Your task to perform on an android device: turn on showing notifications on the lock screen Image 0: 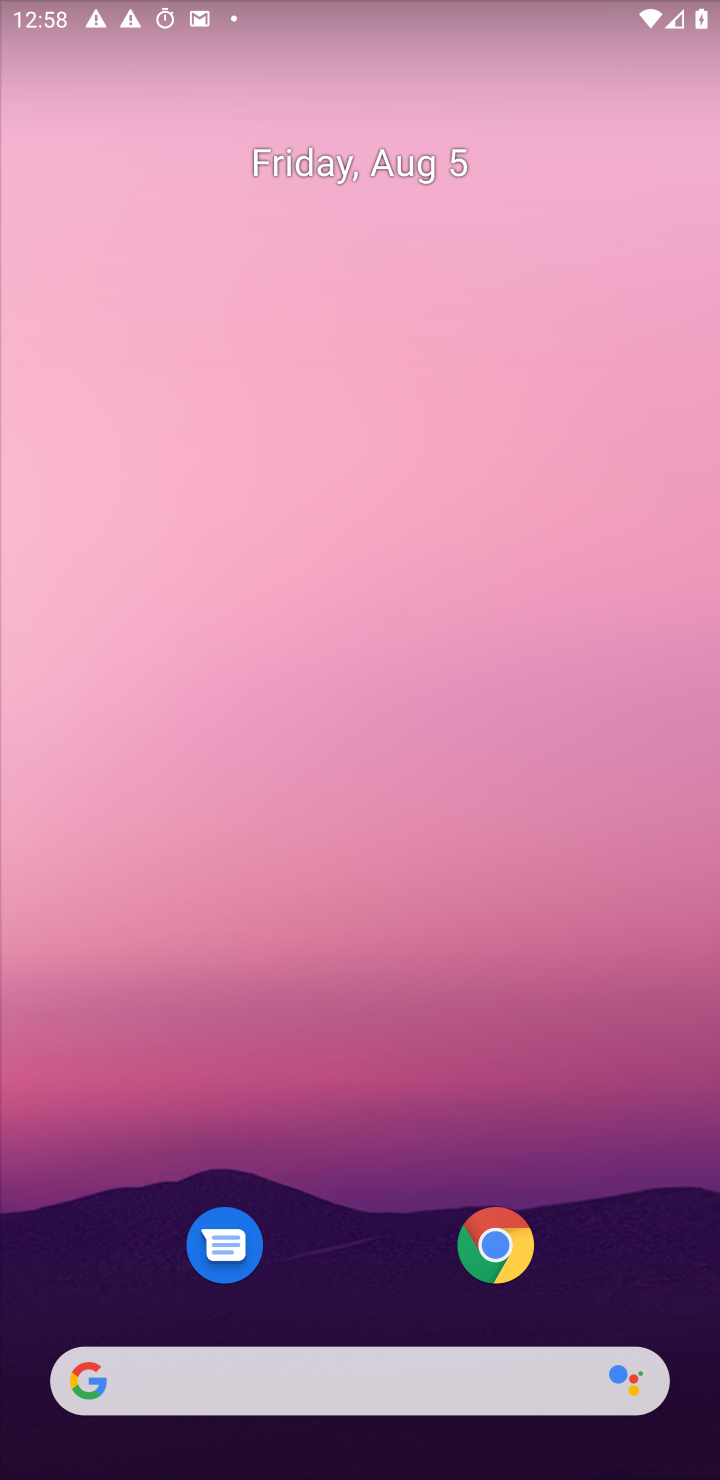
Step 0: press home button
Your task to perform on an android device: turn on showing notifications on the lock screen Image 1: 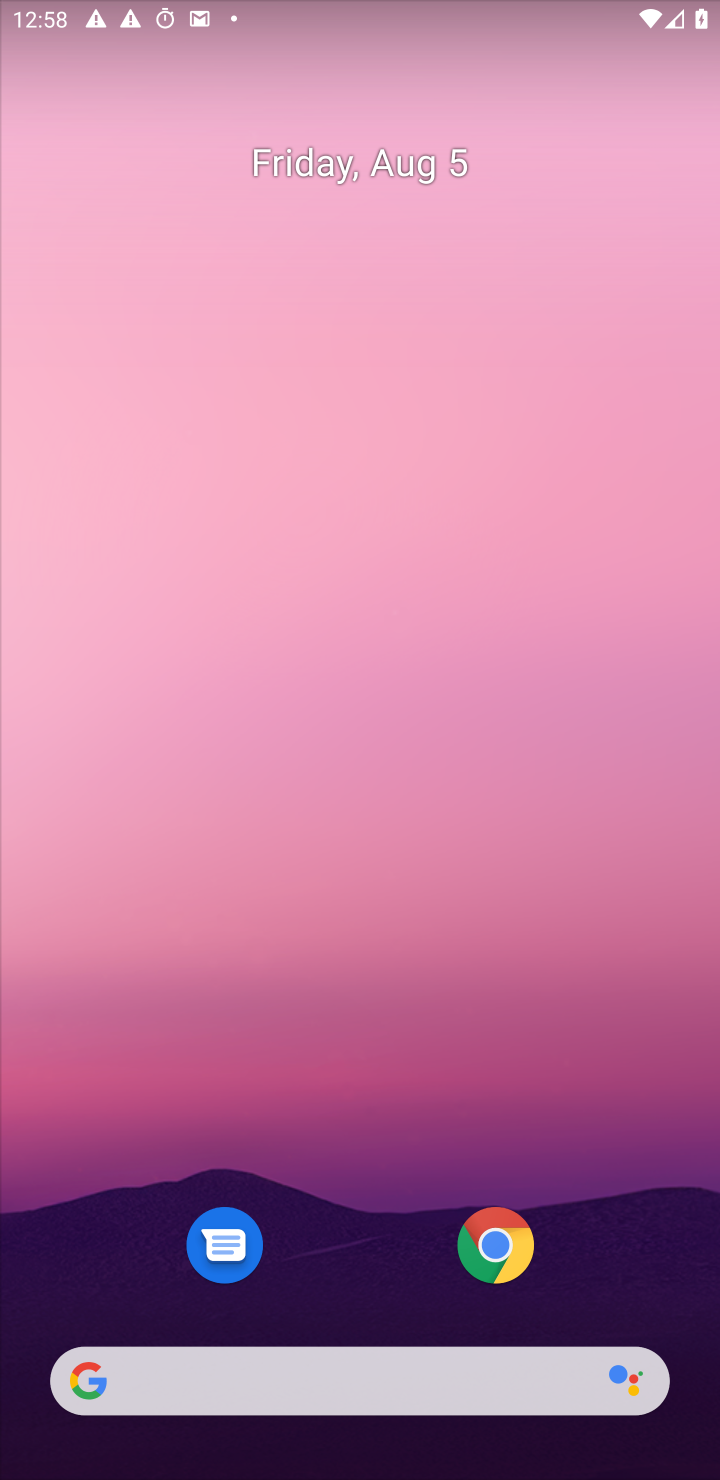
Step 1: drag from (328, 1300) to (525, 247)
Your task to perform on an android device: turn on showing notifications on the lock screen Image 2: 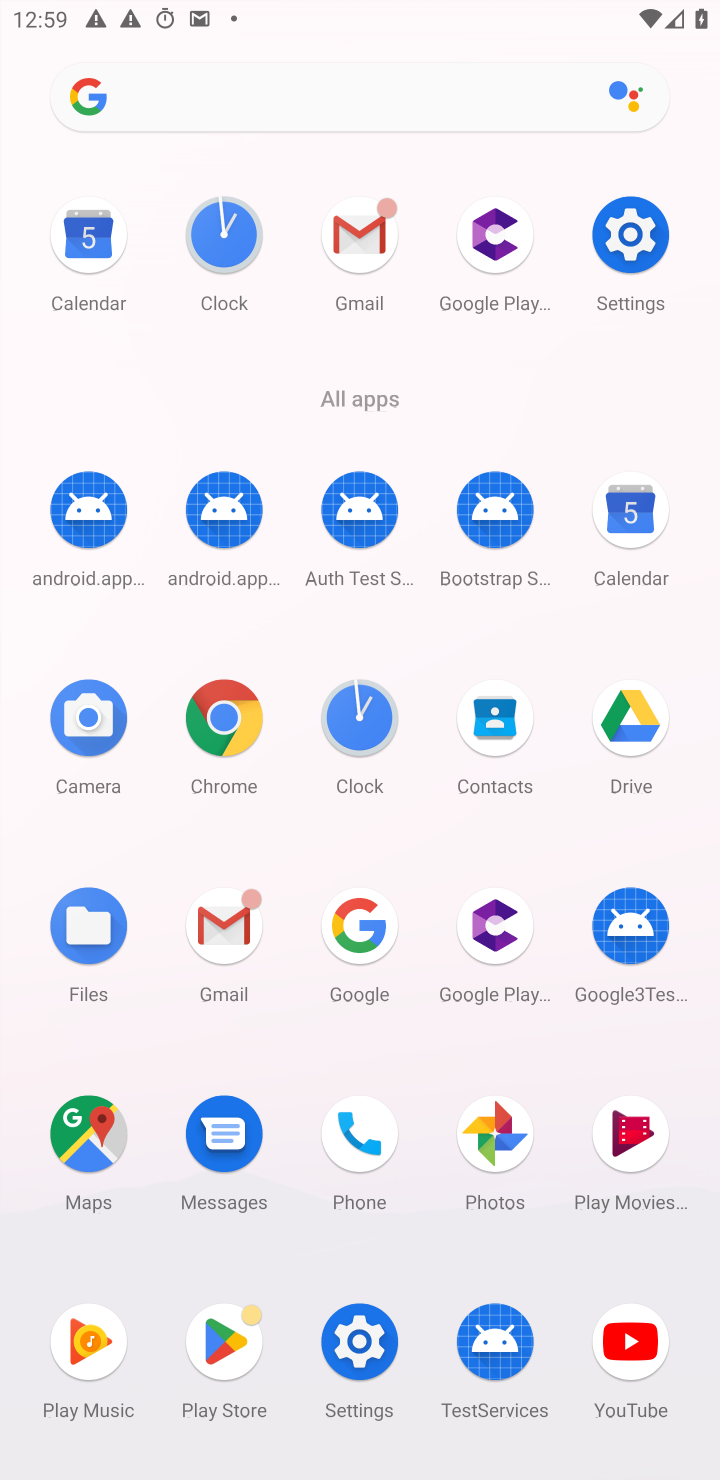
Step 2: click (630, 235)
Your task to perform on an android device: turn on showing notifications on the lock screen Image 3: 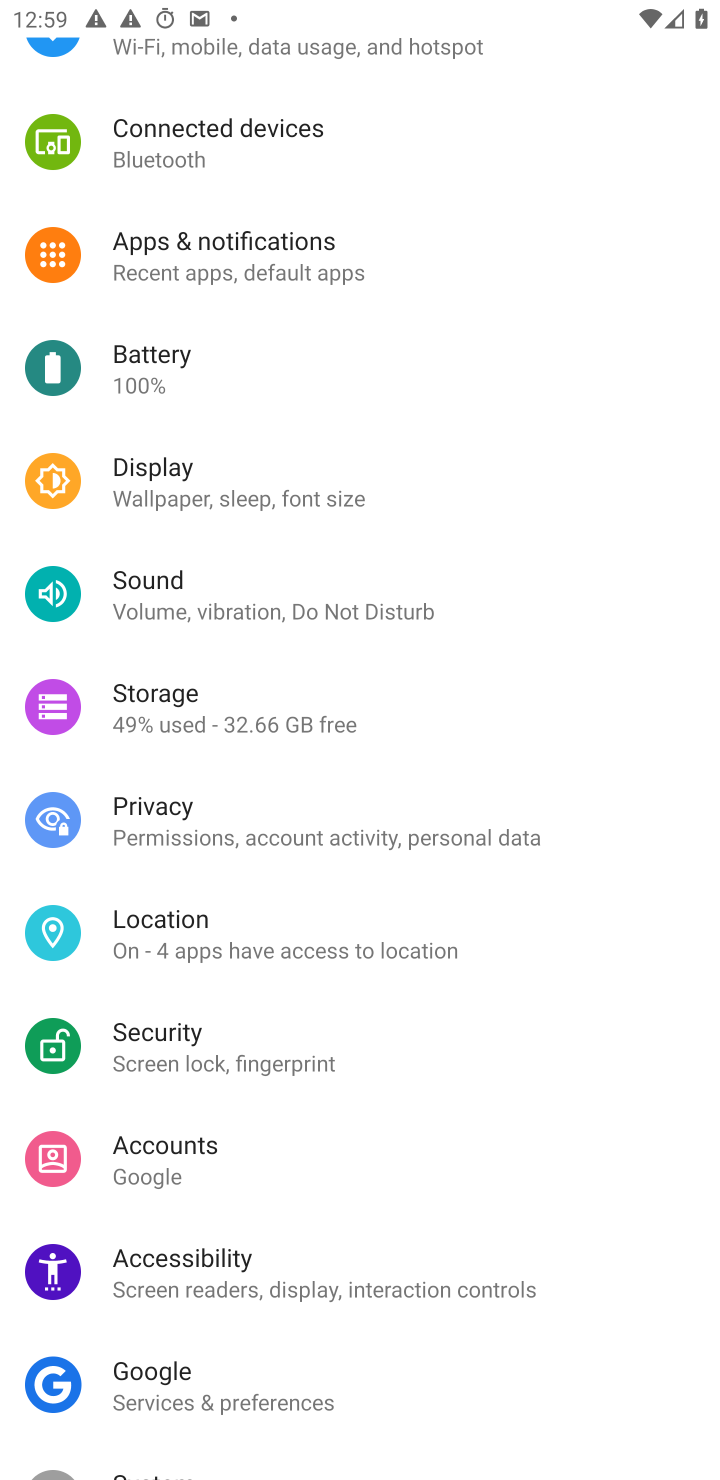
Step 3: click (225, 248)
Your task to perform on an android device: turn on showing notifications on the lock screen Image 4: 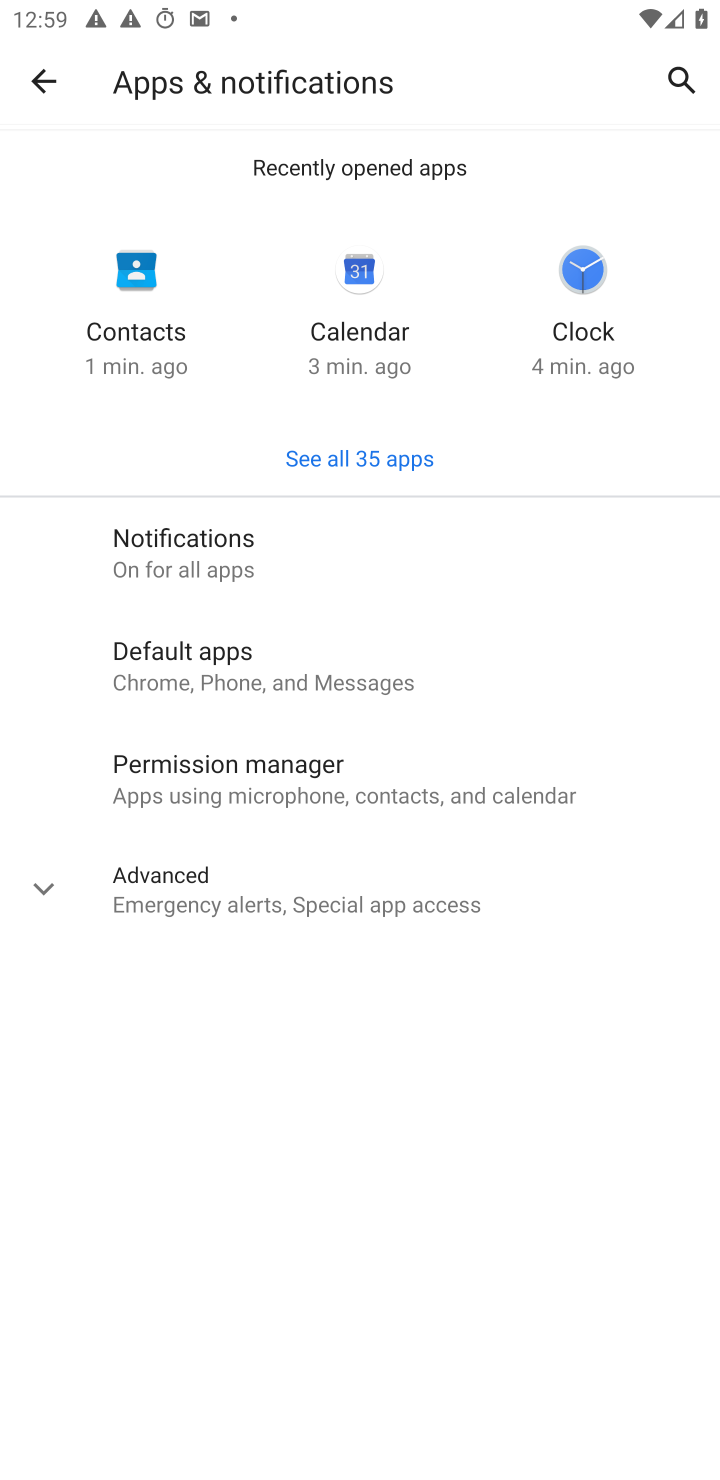
Step 4: click (216, 555)
Your task to perform on an android device: turn on showing notifications on the lock screen Image 5: 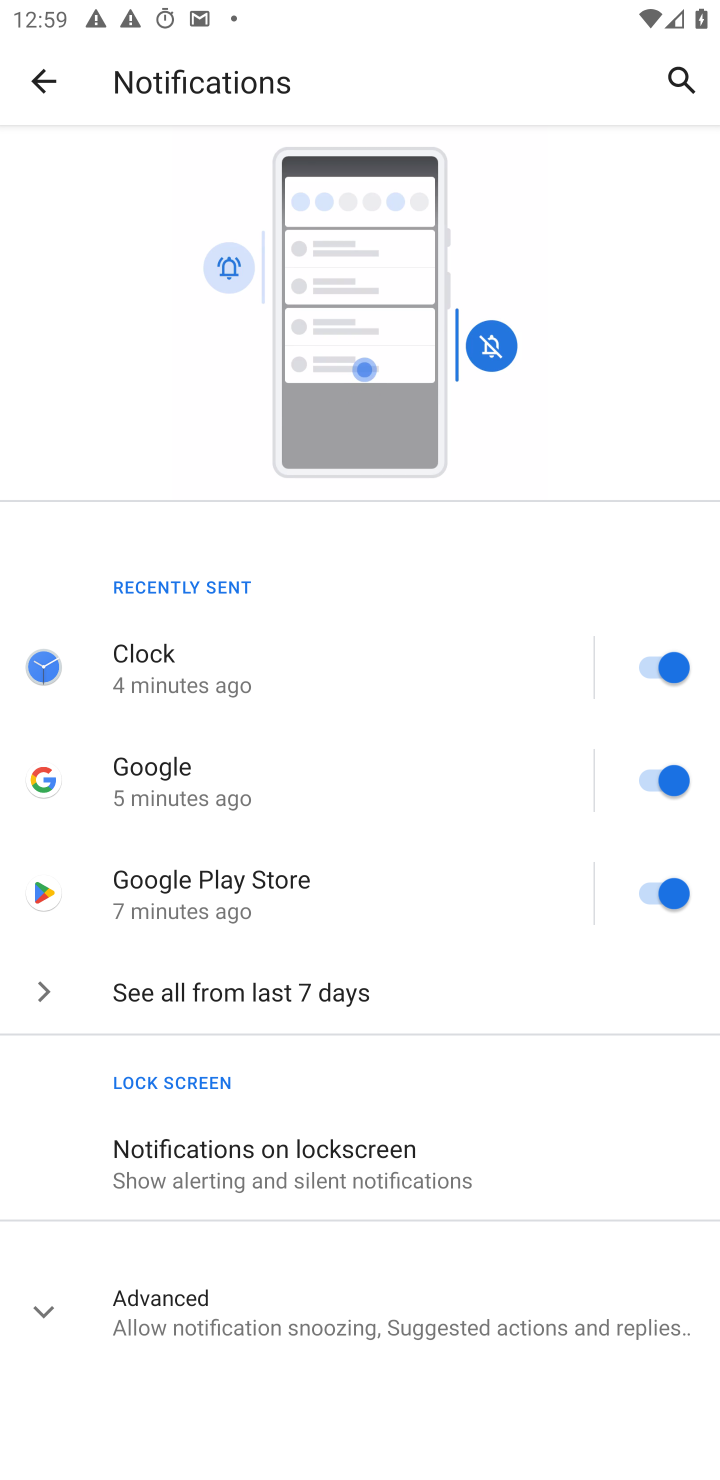
Step 5: drag from (555, 485) to (555, 409)
Your task to perform on an android device: turn on showing notifications on the lock screen Image 6: 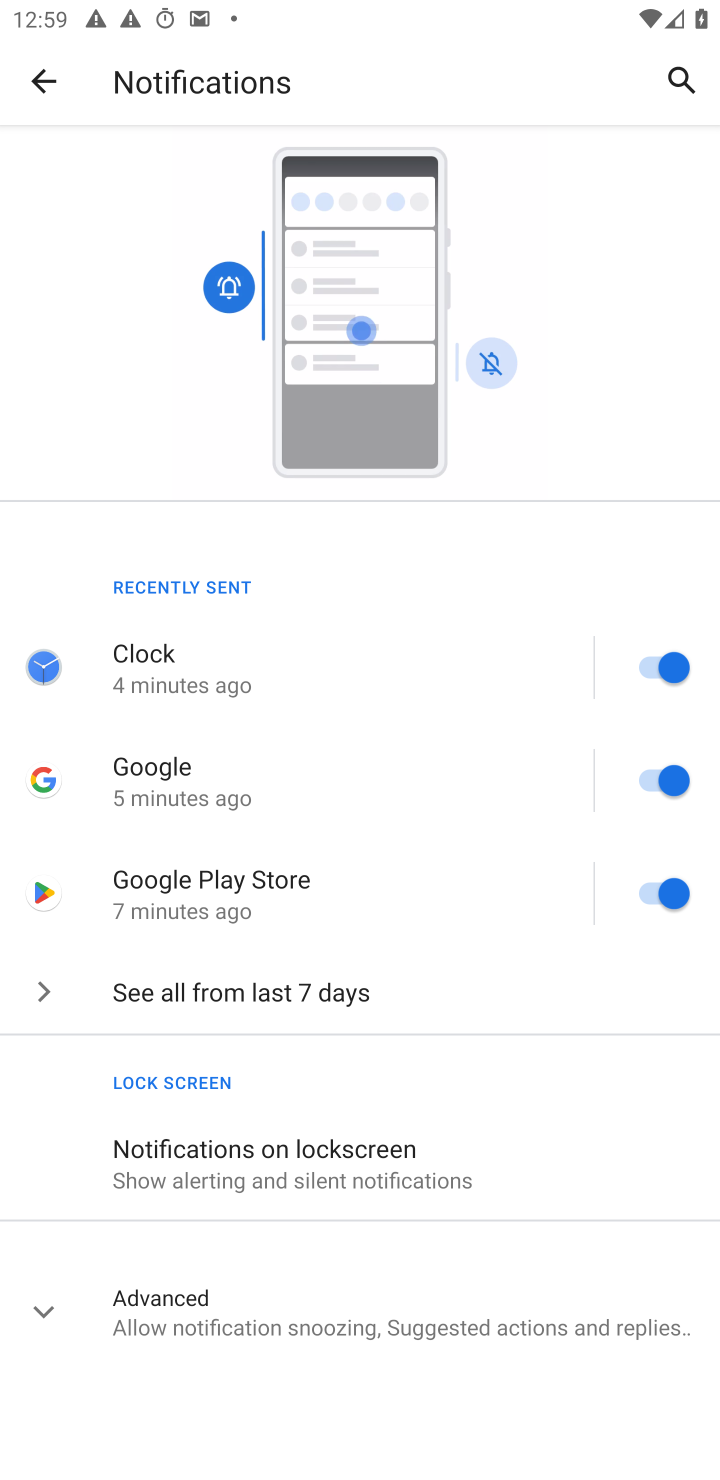
Step 6: click (534, 613)
Your task to perform on an android device: turn on showing notifications on the lock screen Image 7: 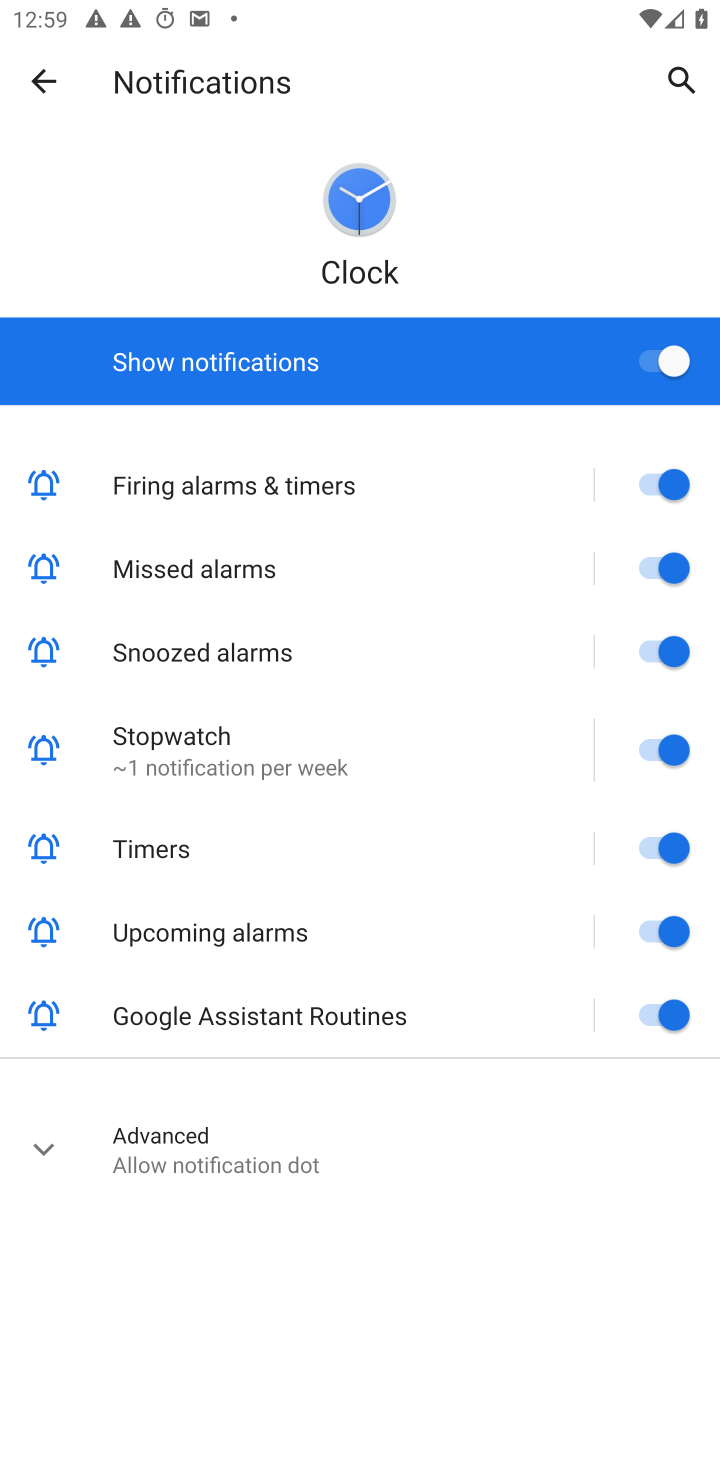
Step 7: click (33, 86)
Your task to perform on an android device: turn on showing notifications on the lock screen Image 8: 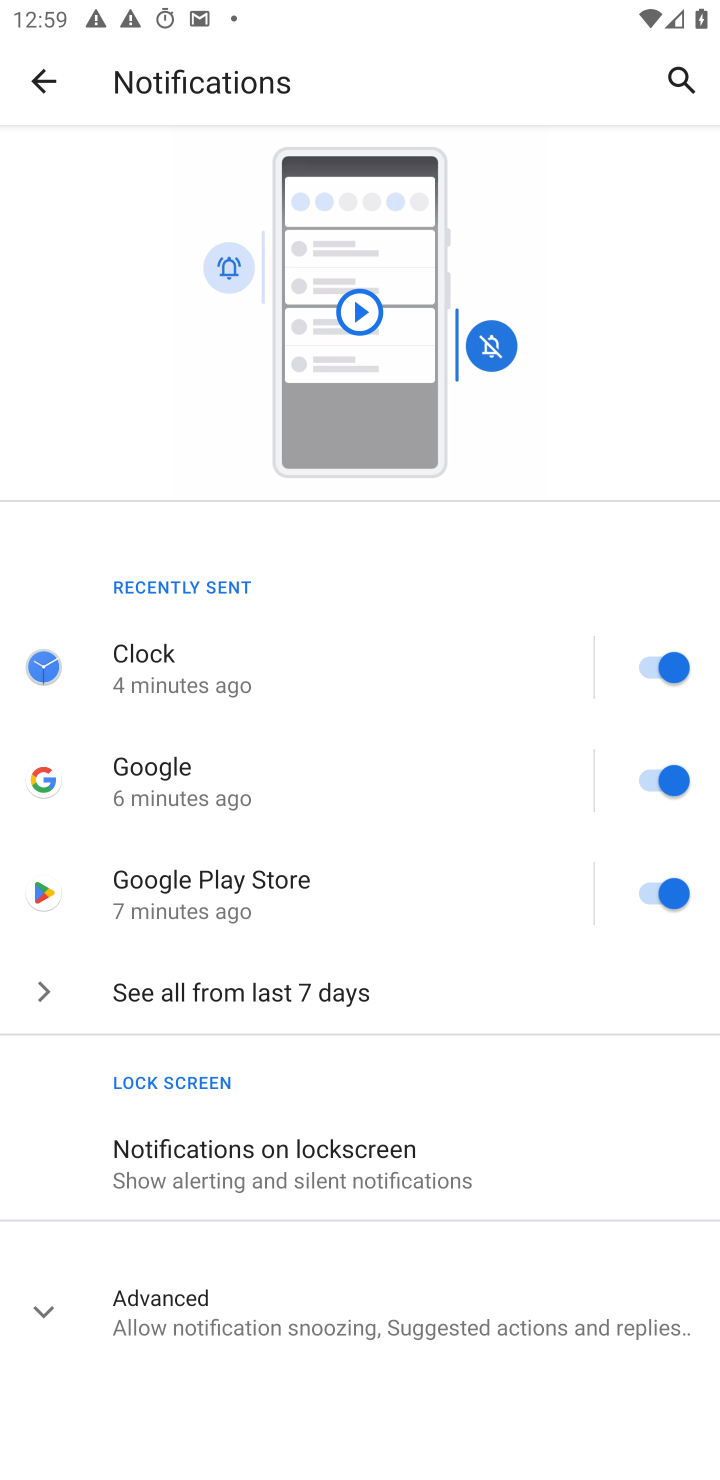
Step 8: click (214, 1169)
Your task to perform on an android device: turn on showing notifications on the lock screen Image 9: 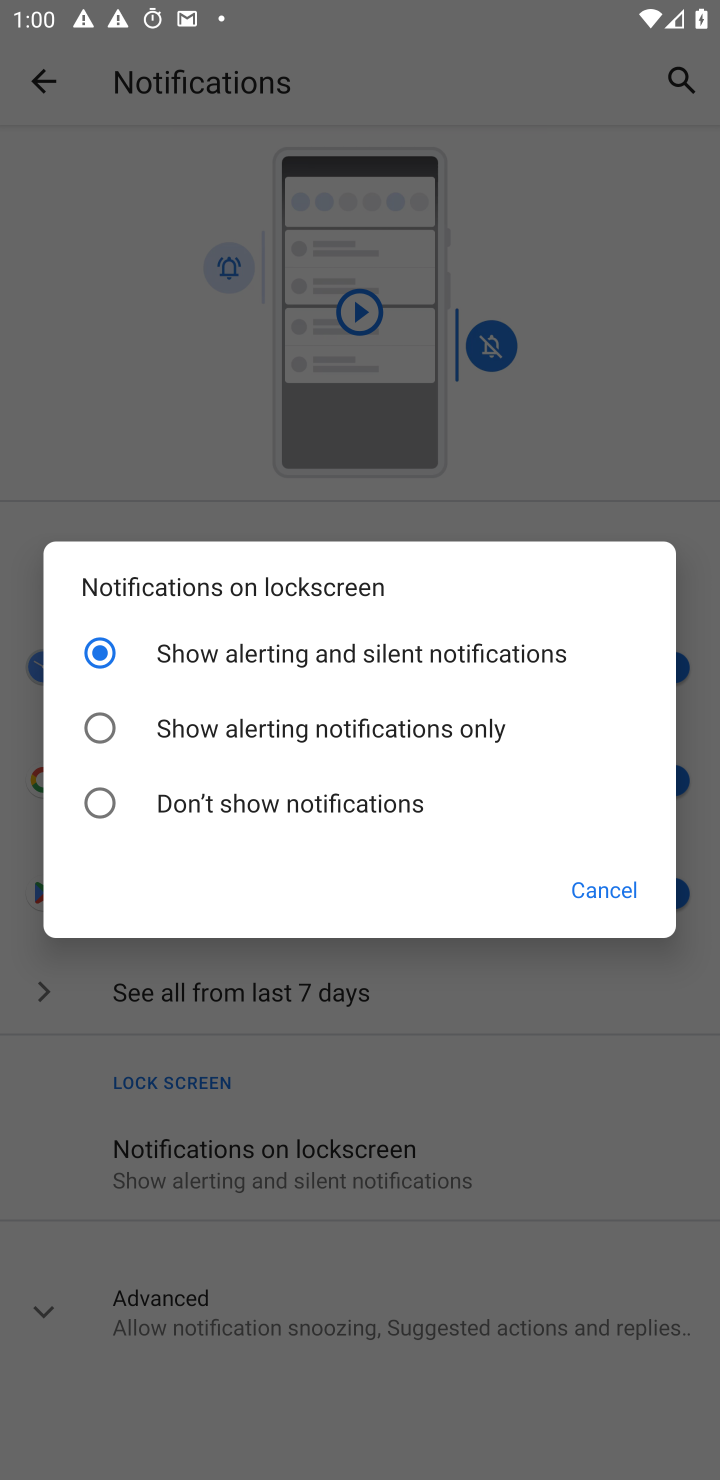
Step 9: task complete